Your task to perform on an android device: Open maps Image 0: 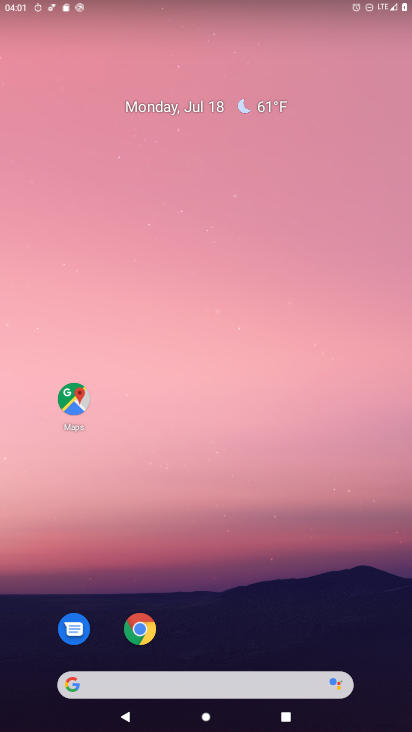
Step 0: click (74, 398)
Your task to perform on an android device: Open maps Image 1: 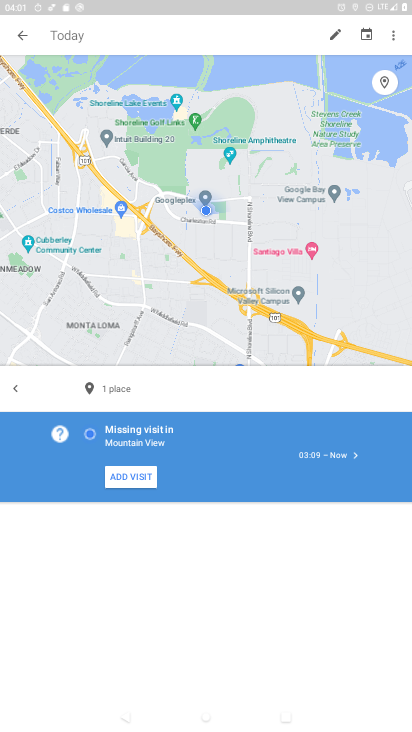
Step 1: task complete